Your task to perform on an android device: Open Google Maps Image 0: 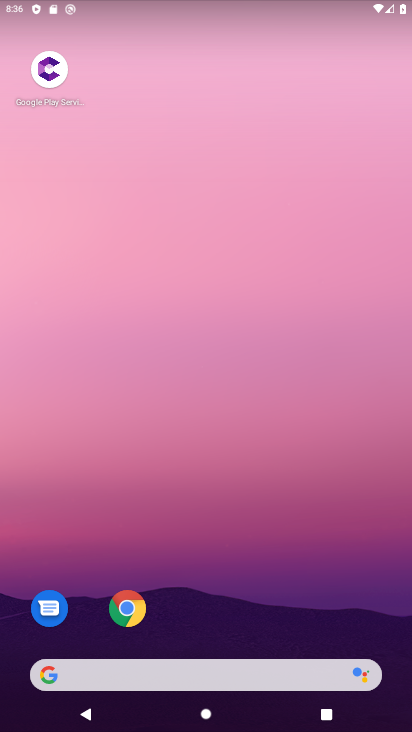
Step 0: drag from (197, 630) to (225, 30)
Your task to perform on an android device: Open Google Maps Image 1: 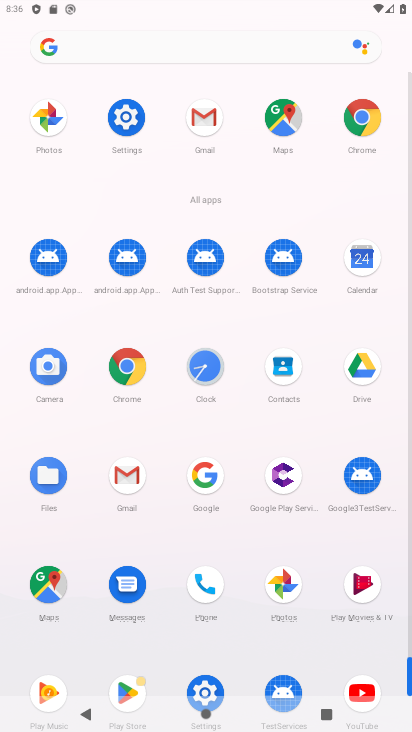
Step 1: click (54, 590)
Your task to perform on an android device: Open Google Maps Image 2: 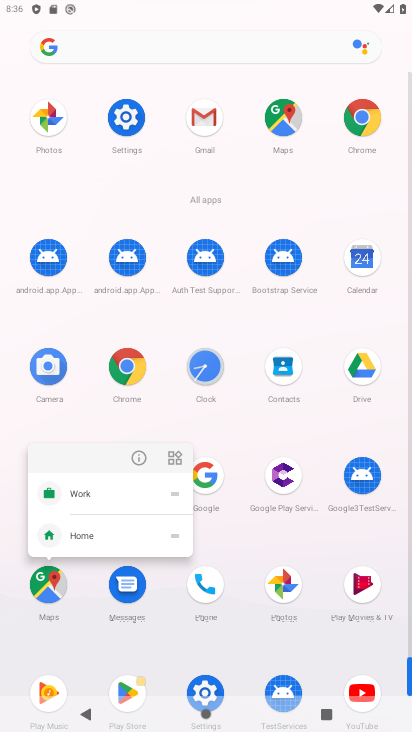
Step 2: click (54, 588)
Your task to perform on an android device: Open Google Maps Image 3: 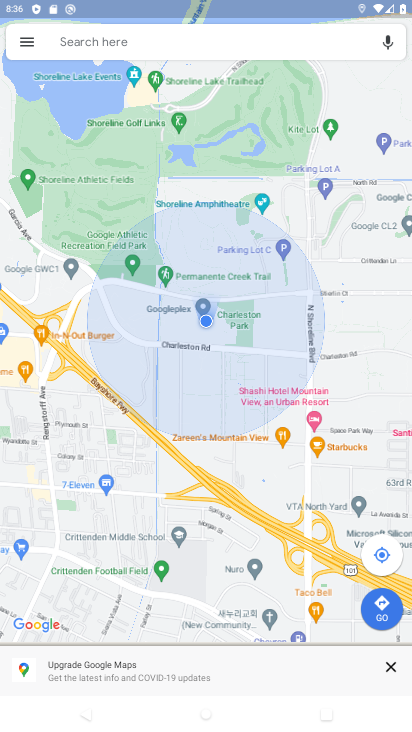
Step 3: task complete